Your task to perform on an android device: check storage Image 0: 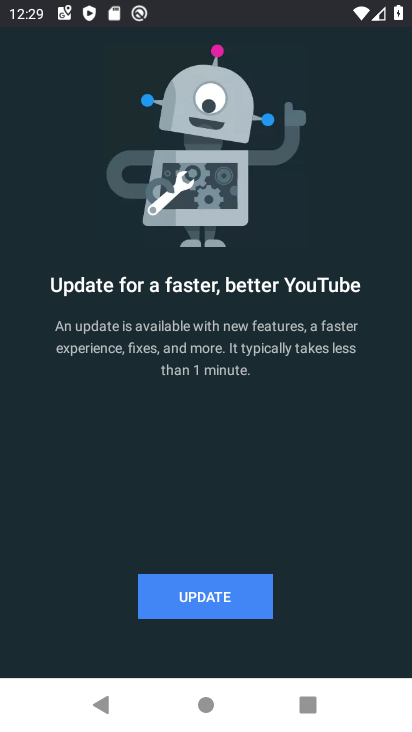
Step 0: press home button
Your task to perform on an android device: check storage Image 1: 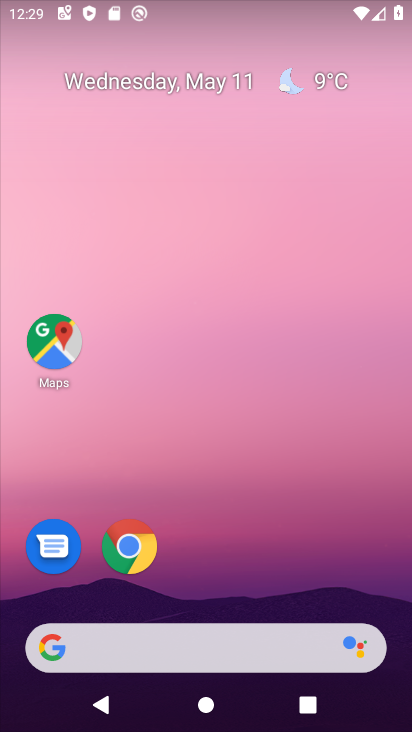
Step 1: drag from (297, 609) to (287, 6)
Your task to perform on an android device: check storage Image 2: 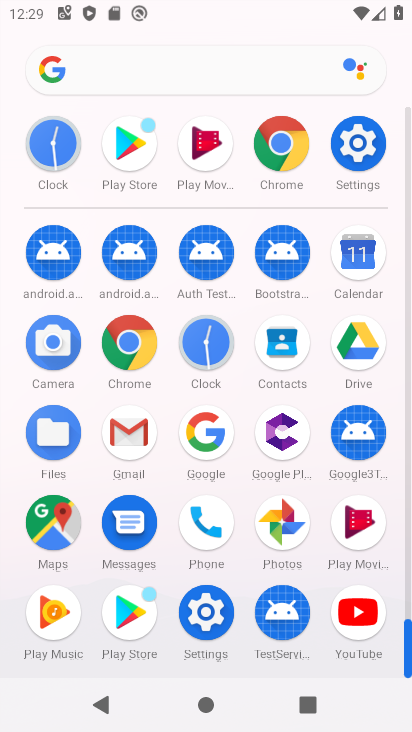
Step 2: click (348, 148)
Your task to perform on an android device: check storage Image 3: 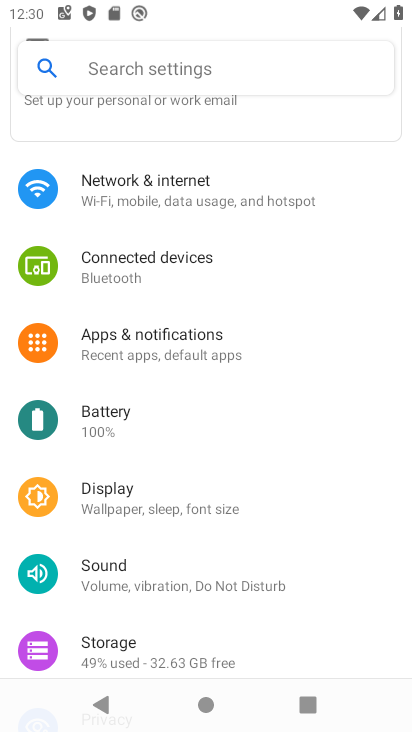
Step 3: drag from (241, 446) to (276, 213)
Your task to perform on an android device: check storage Image 4: 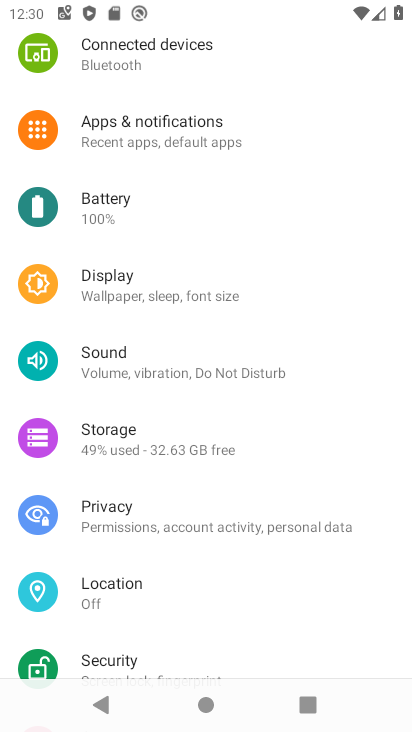
Step 4: click (125, 435)
Your task to perform on an android device: check storage Image 5: 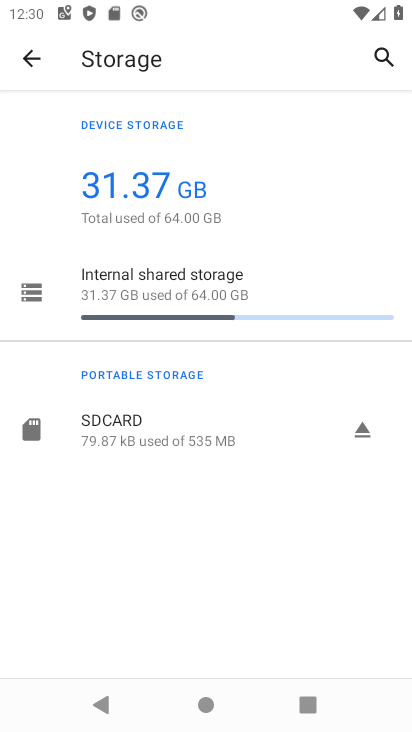
Step 5: task complete